Your task to perform on an android device: Open my contact list Image 0: 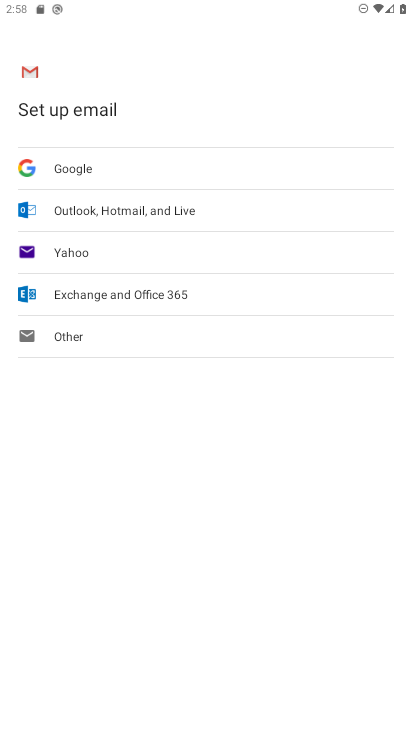
Step 0: press home button
Your task to perform on an android device: Open my contact list Image 1: 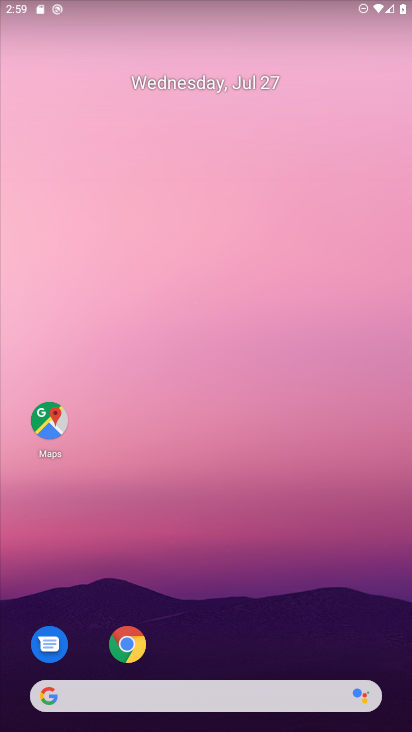
Step 1: drag from (214, 558) to (284, 1)
Your task to perform on an android device: Open my contact list Image 2: 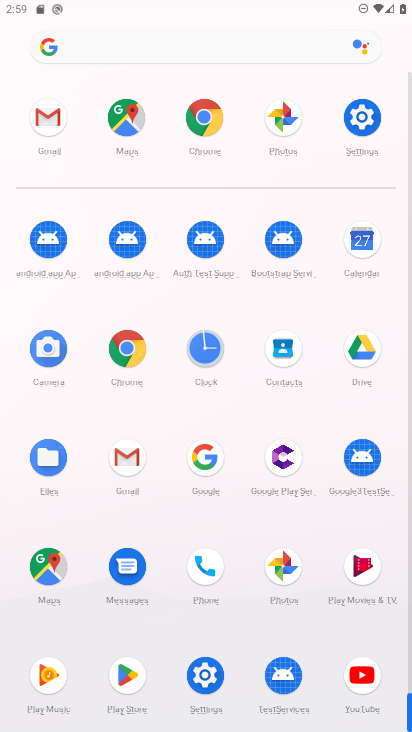
Step 2: click (274, 371)
Your task to perform on an android device: Open my contact list Image 3: 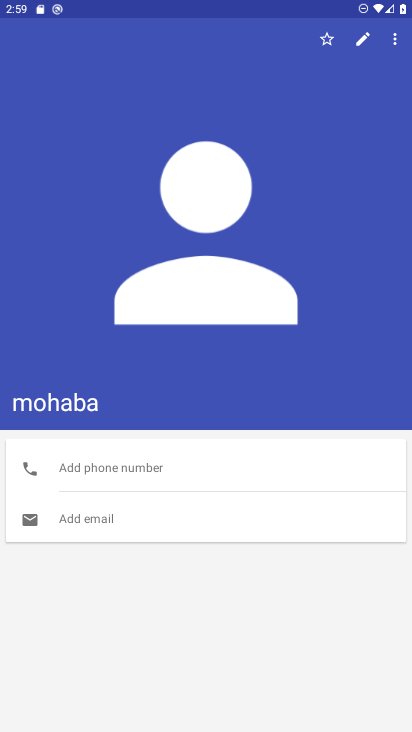
Step 3: task complete